Your task to perform on an android device: set an alarm Image 0: 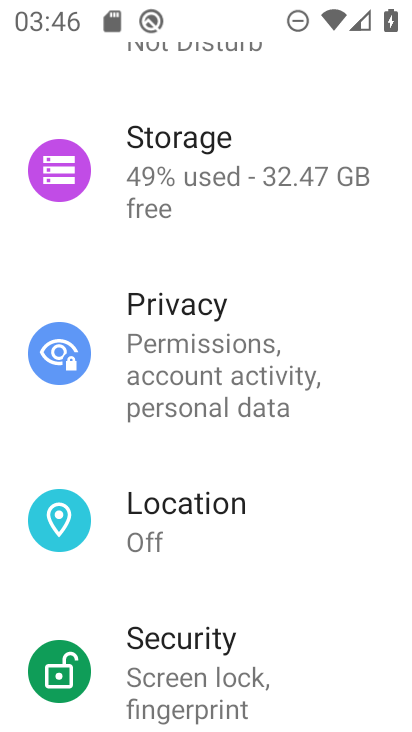
Step 0: press home button
Your task to perform on an android device: set an alarm Image 1: 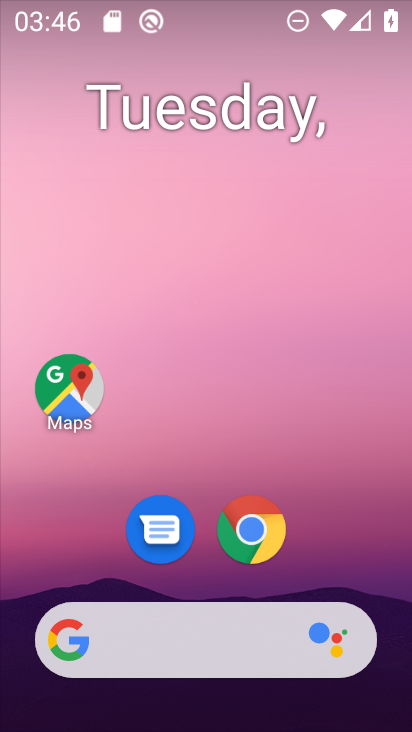
Step 1: drag from (207, 552) to (161, 107)
Your task to perform on an android device: set an alarm Image 2: 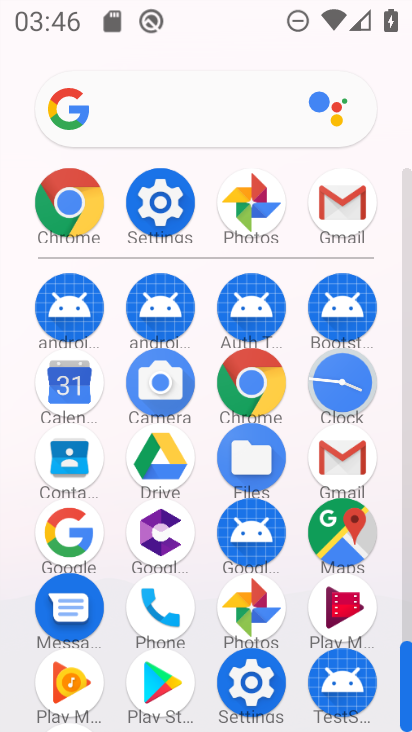
Step 2: click (336, 377)
Your task to perform on an android device: set an alarm Image 3: 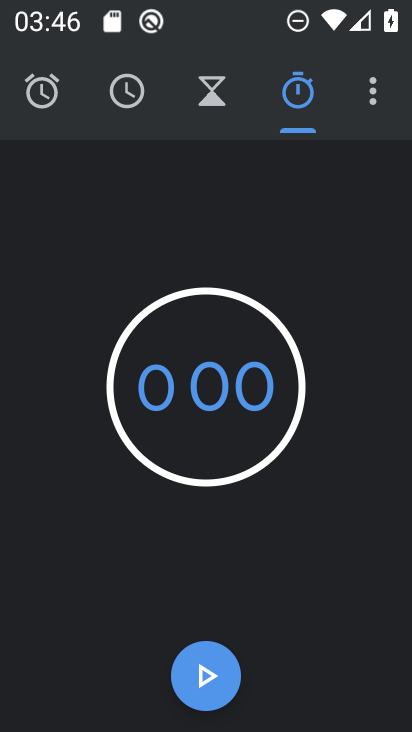
Step 3: click (36, 101)
Your task to perform on an android device: set an alarm Image 4: 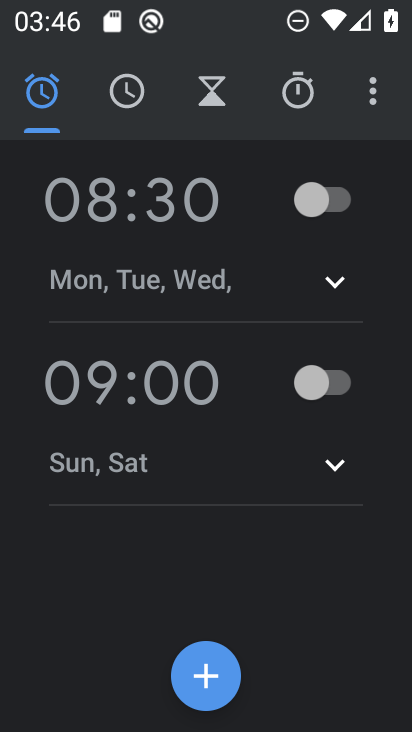
Step 4: click (310, 190)
Your task to perform on an android device: set an alarm Image 5: 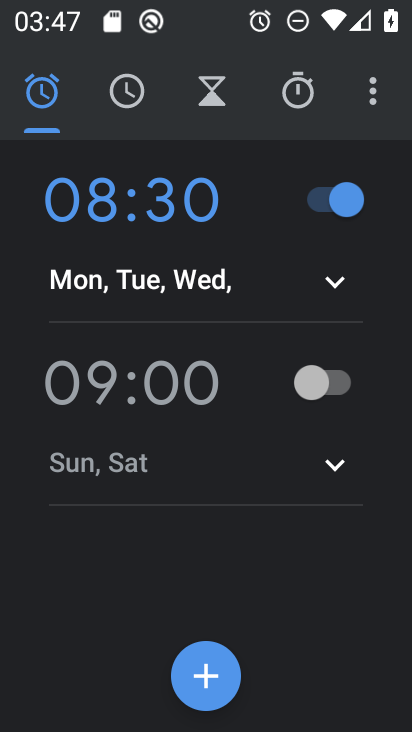
Step 5: task complete